Your task to perform on an android device: turn on javascript in the chrome app Image 0: 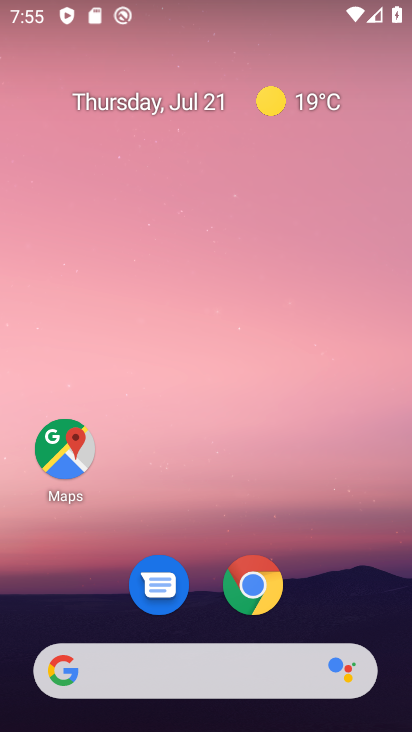
Step 0: click (266, 586)
Your task to perform on an android device: turn on javascript in the chrome app Image 1: 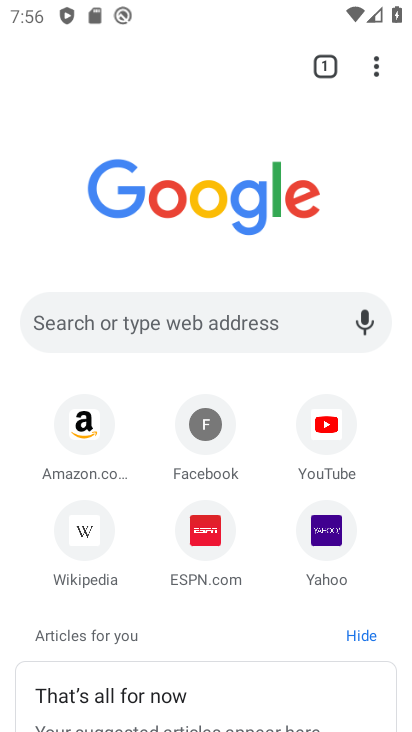
Step 1: click (374, 67)
Your task to perform on an android device: turn on javascript in the chrome app Image 2: 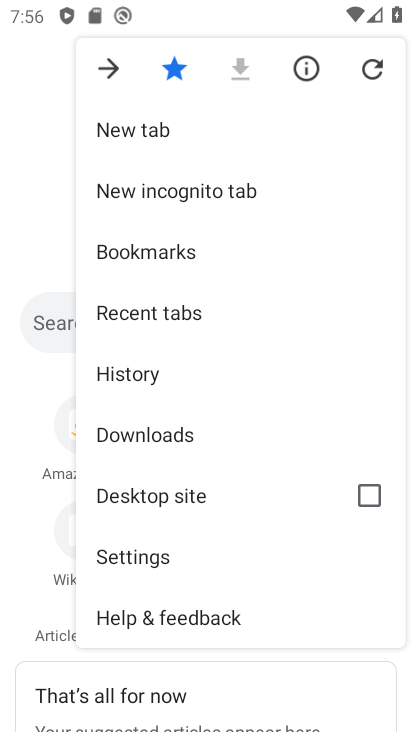
Step 2: click (159, 548)
Your task to perform on an android device: turn on javascript in the chrome app Image 3: 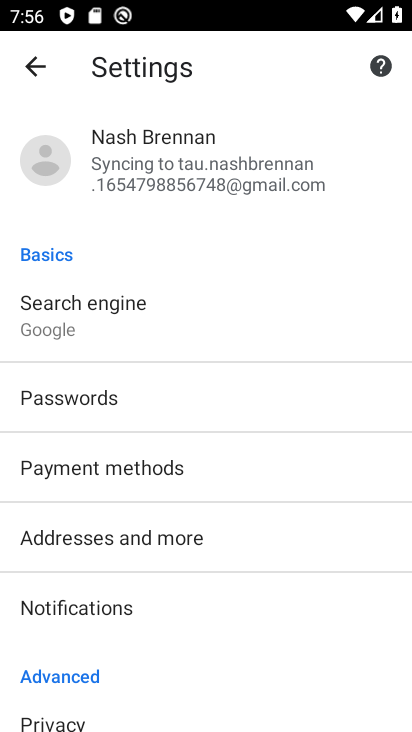
Step 3: drag from (159, 548) to (177, 271)
Your task to perform on an android device: turn on javascript in the chrome app Image 4: 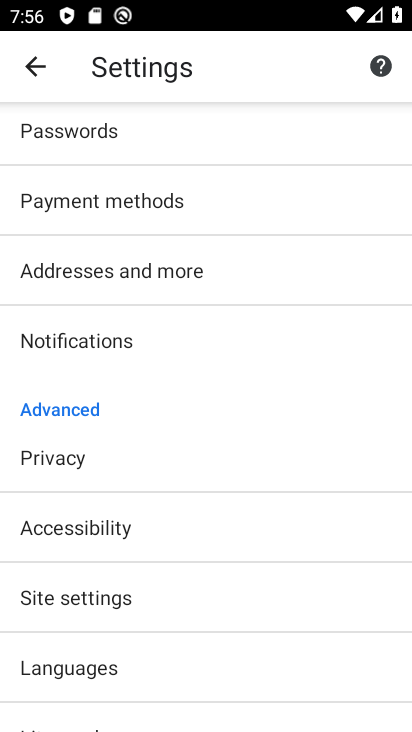
Step 4: click (111, 594)
Your task to perform on an android device: turn on javascript in the chrome app Image 5: 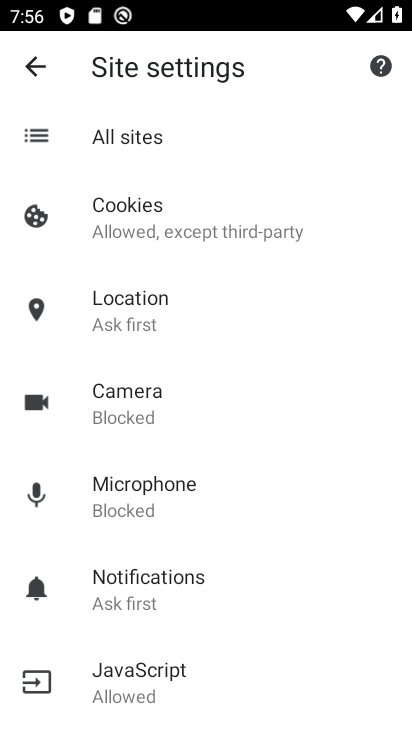
Step 5: click (145, 681)
Your task to perform on an android device: turn on javascript in the chrome app Image 6: 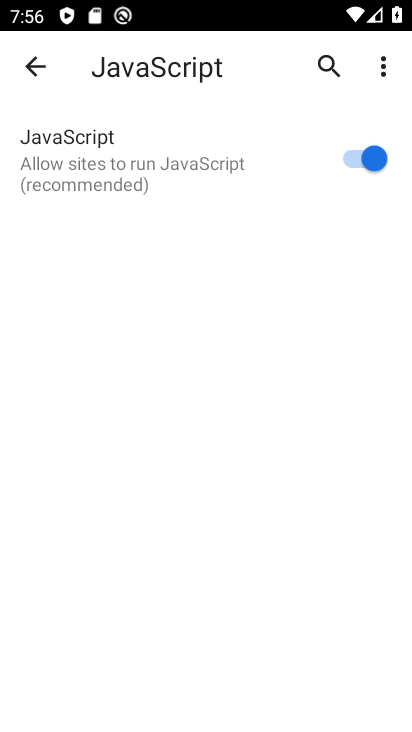
Step 6: task complete